Your task to perform on an android device: turn on location history Image 0: 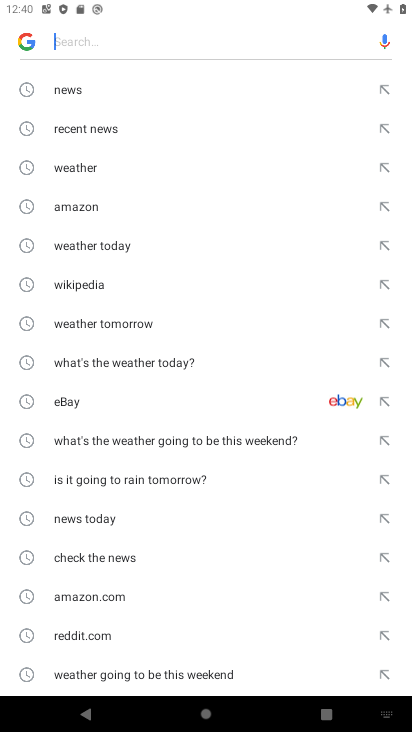
Step 0: press home button
Your task to perform on an android device: turn on location history Image 1: 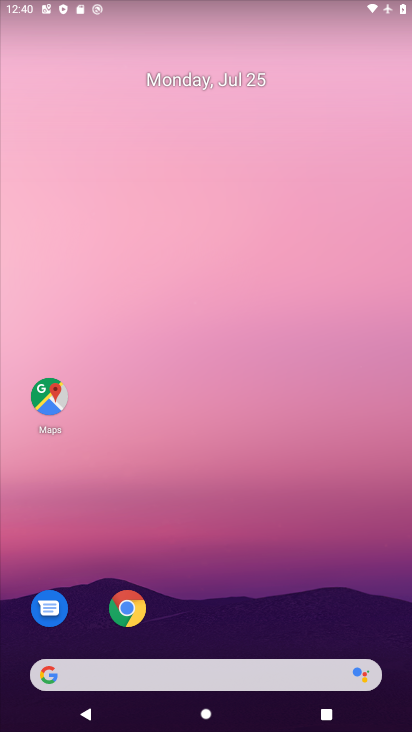
Step 1: drag from (180, 637) to (180, 52)
Your task to perform on an android device: turn on location history Image 2: 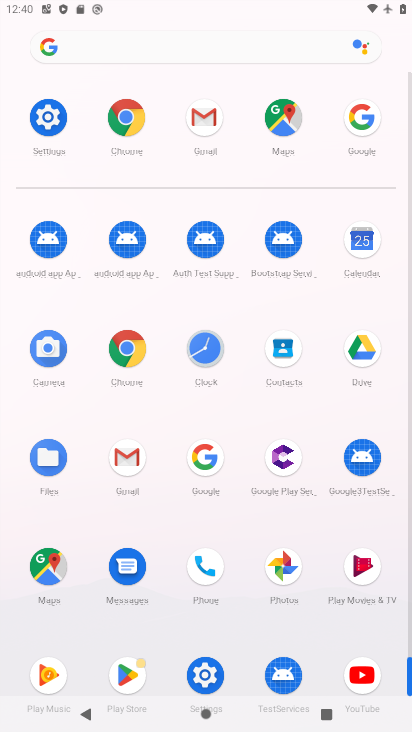
Step 2: click (198, 667)
Your task to perform on an android device: turn on location history Image 3: 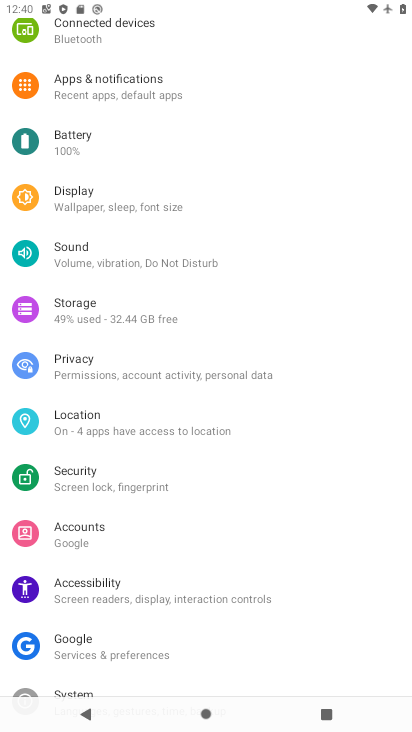
Step 3: drag from (123, 363) to (142, 558)
Your task to perform on an android device: turn on location history Image 4: 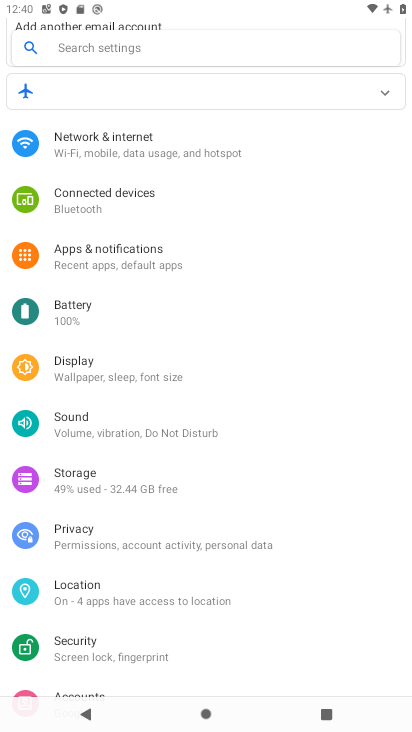
Step 4: click (111, 594)
Your task to perform on an android device: turn on location history Image 5: 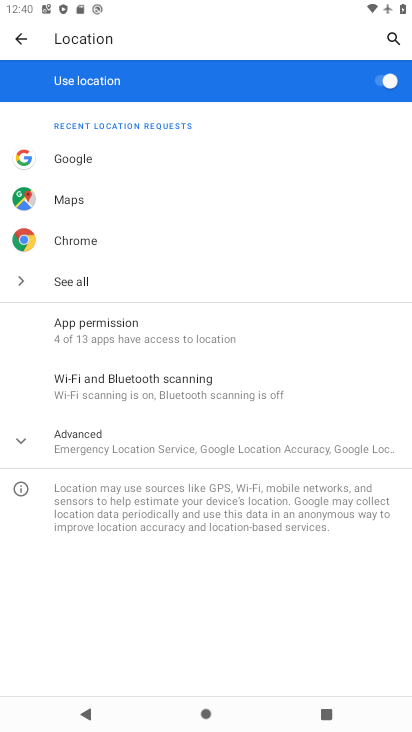
Step 5: click (87, 447)
Your task to perform on an android device: turn on location history Image 6: 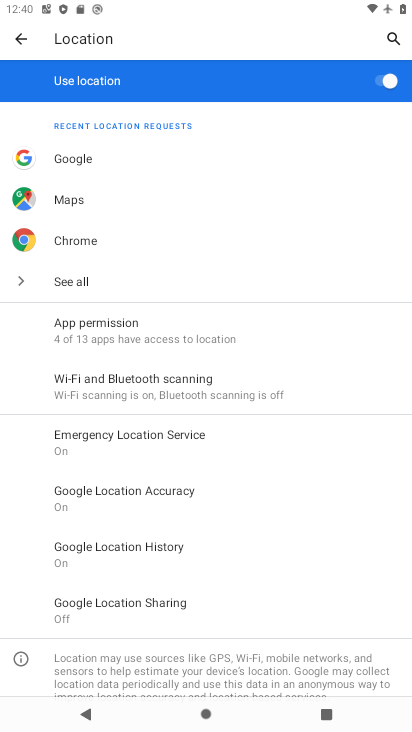
Step 6: click (126, 493)
Your task to perform on an android device: turn on location history Image 7: 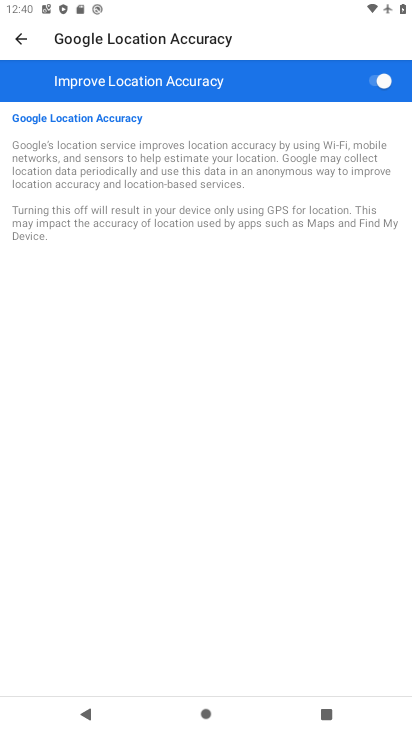
Step 7: task complete